Your task to perform on an android device: Go to notification settings Image 0: 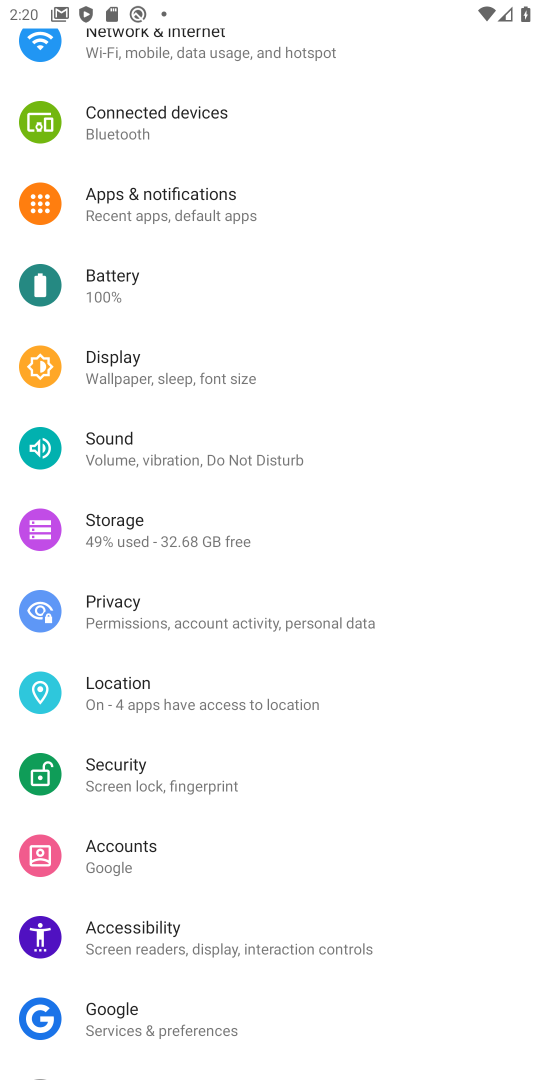
Step 0: click (245, 211)
Your task to perform on an android device: Go to notification settings Image 1: 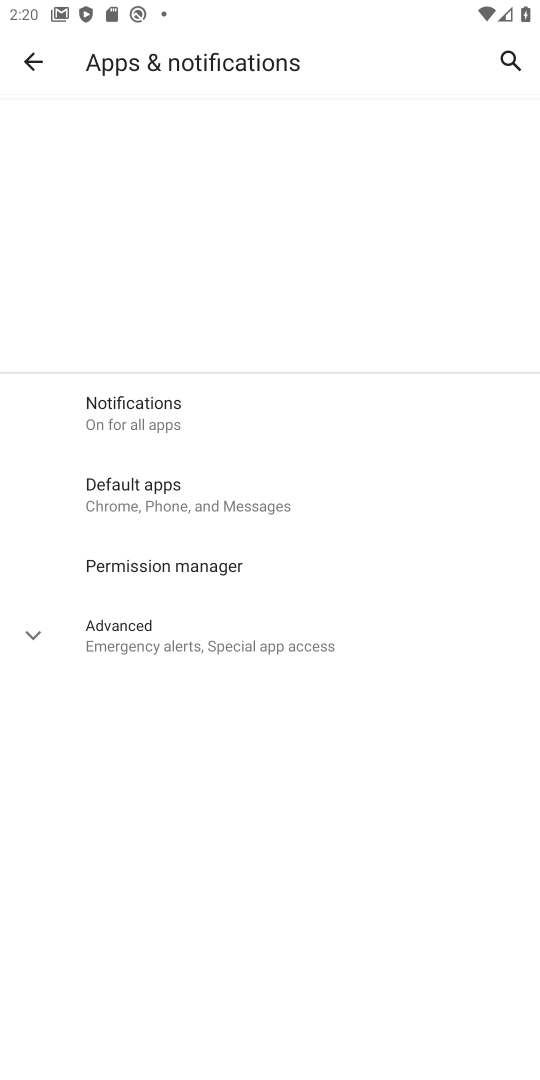
Step 1: task complete